Your task to perform on an android device: open app "eBay: The shopping marketplace" (install if not already installed), go to login, and select forgot password Image 0: 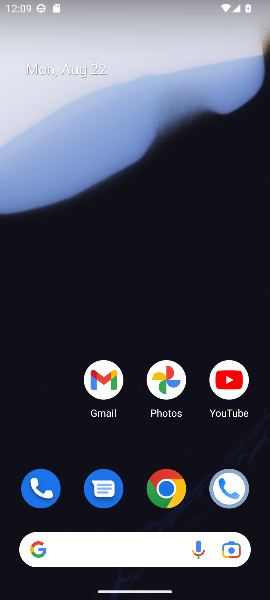
Step 0: drag from (129, 466) to (100, 3)
Your task to perform on an android device: open app "eBay: The shopping marketplace" (install if not already installed), go to login, and select forgot password Image 1: 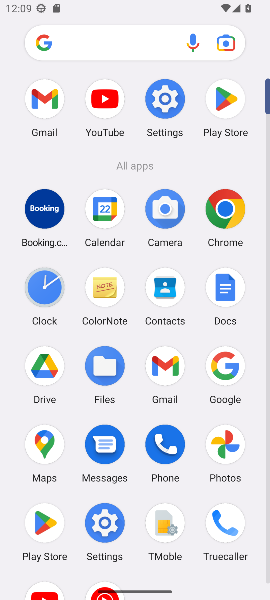
Step 1: click (228, 104)
Your task to perform on an android device: open app "eBay: The shopping marketplace" (install if not already installed), go to login, and select forgot password Image 2: 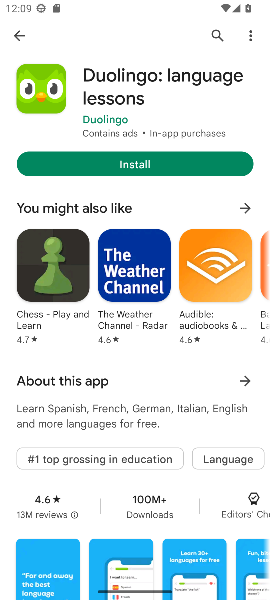
Step 2: click (22, 33)
Your task to perform on an android device: open app "eBay: The shopping marketplace" (install if not already installed), go to login, and select forgot password Image 3: 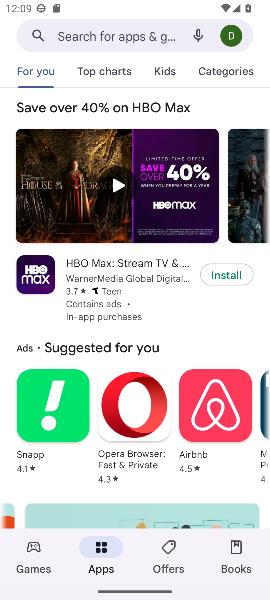
Step 3: click (124, 34)
Your task to perform on an android device: open app "eBay: The shopping marketplace" (install if not already installed), go to login, and select forgot password Image 4: 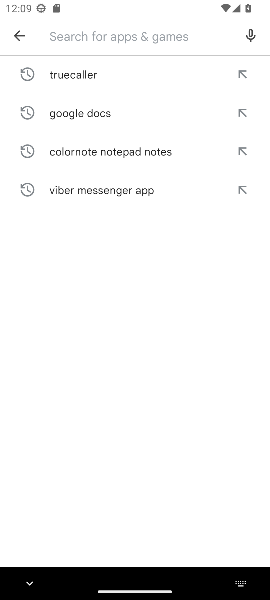
Step 4: type "eBay"
Your task to perform on an android device: open app "eBay: The shopping marketplace" (install if not already installed), go to login, and select forgot password Image 5: 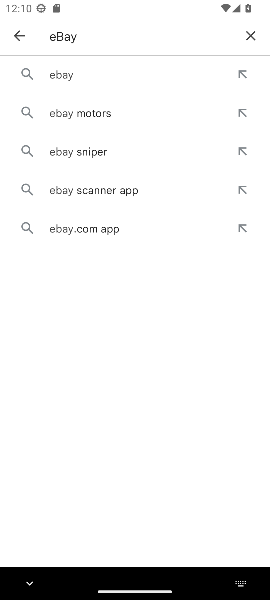
Step 5: click (56, 69)
Your task to perform on an android device: open app "eBay: The shopping marketplace" (install if not already installed), go to login, and select forgot password Image 6: 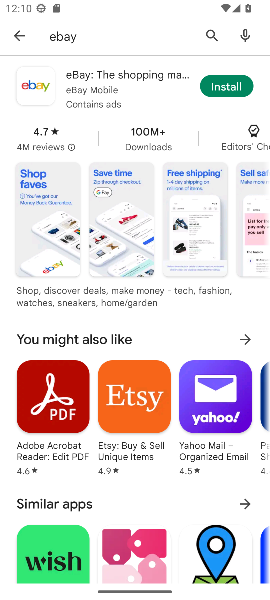
Step 6: click (228, 88)
Your task to perform on an android device: open app "eBay: The shopping marketplace" (install if not already installed), go to login, and select forgot password Image 7: 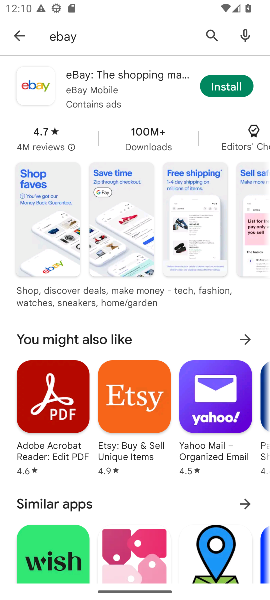
Step 7: click (228, 88)
Your task to perform on an android device: open app "eBay: The shopping marketplace" (install if not already installed), go to login, and select forgot password Image 8: 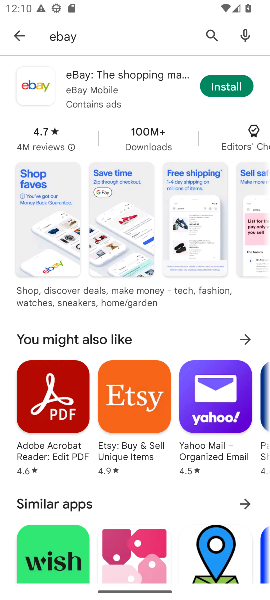
Step 8: task complete